Your task to perform on an android device: add a contact Image 0: 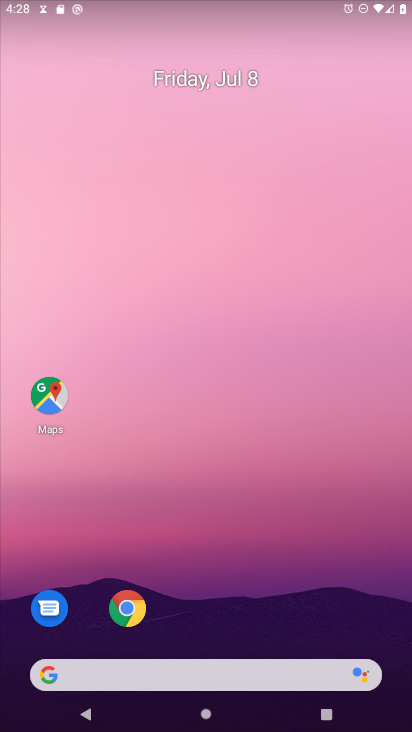
Step 0: drag from (207, 685) to (344, 34)
Your task to perform on an android device: add a contact Image 1: 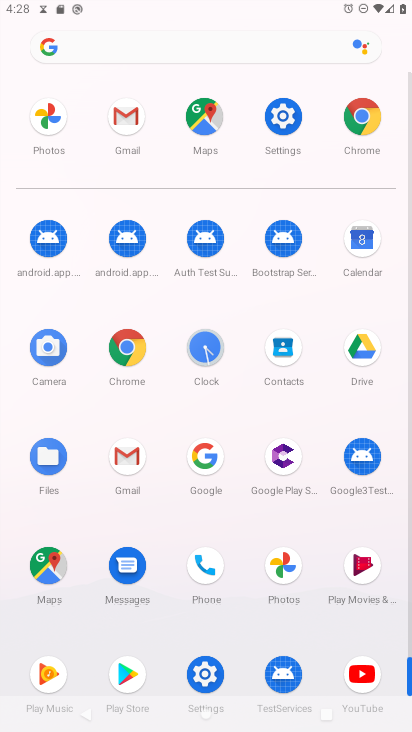
Step 1: click (293, 353)
Your task to perform on an android device: add a contact Image 2: 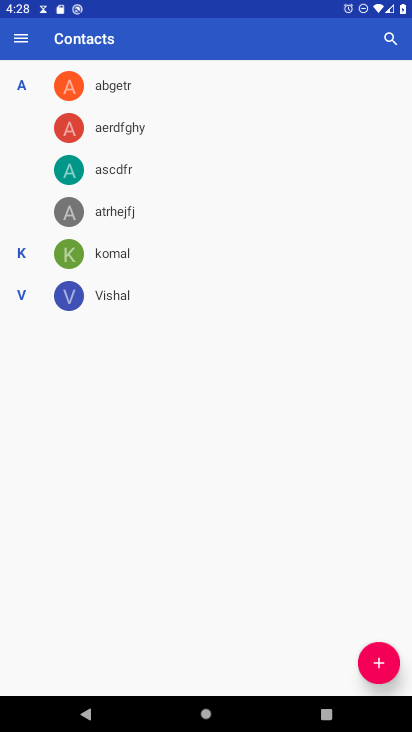
Step 2: click (383, 654)
Your task to perform on an android device: add a contact Image 3: 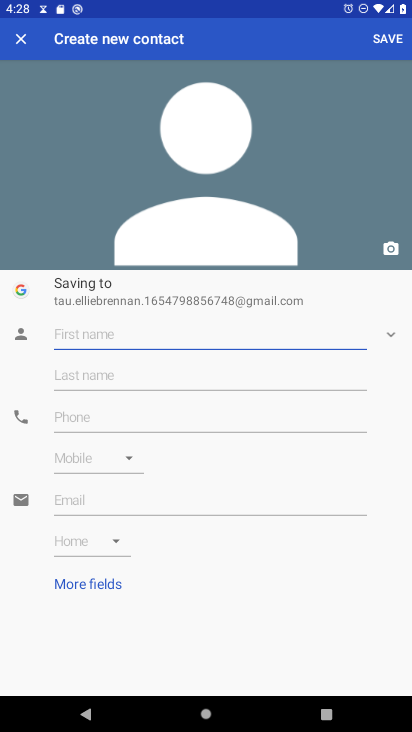
Step 3: type "shweta"
Your task to perform on an android device: add a contact Image 4: 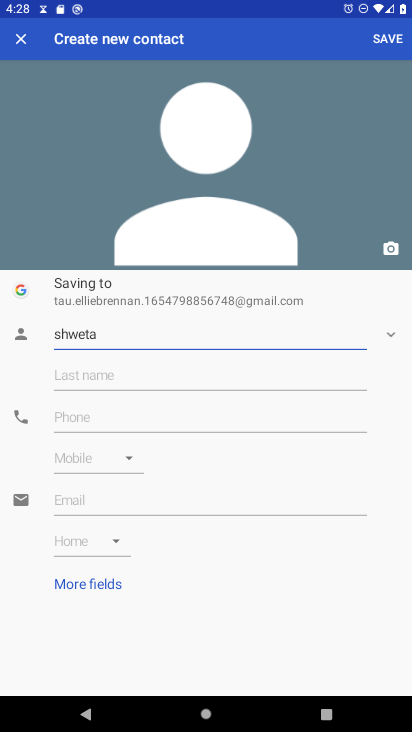
Step 4: click (120, 425)
Your task to perform on an android device: add a contact Image 5: 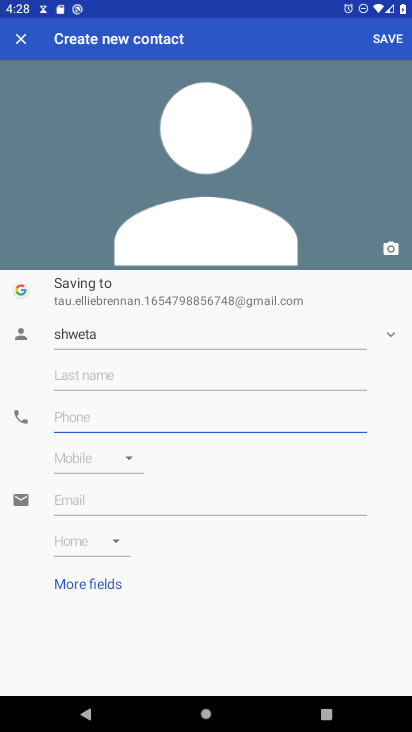
Step 5: type "9557067055"
Your task to perform on an android device: add a contact Image 6: 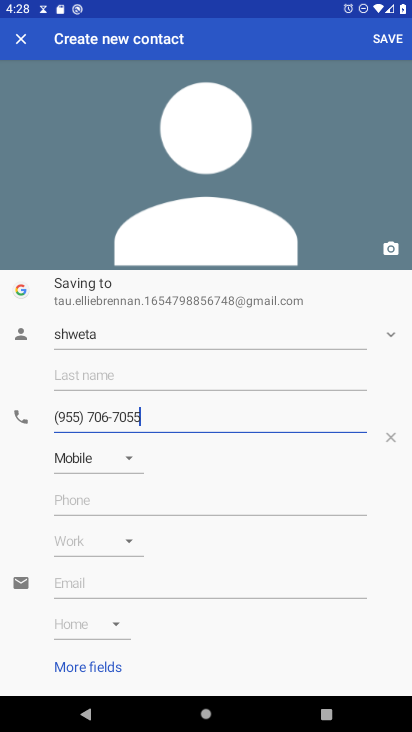
Step 6: click (386, 41)
Your task to perform on an android device: add a contact Image 7: 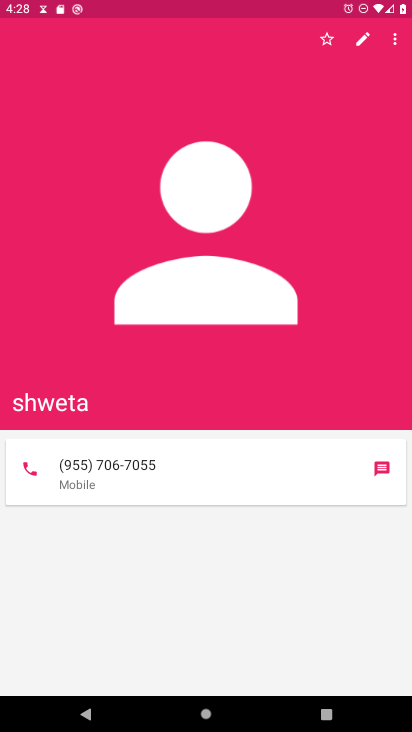
Step 7: task complete